Your task to perform on an android device: Open the calendar and show me this week's events? Image 0: 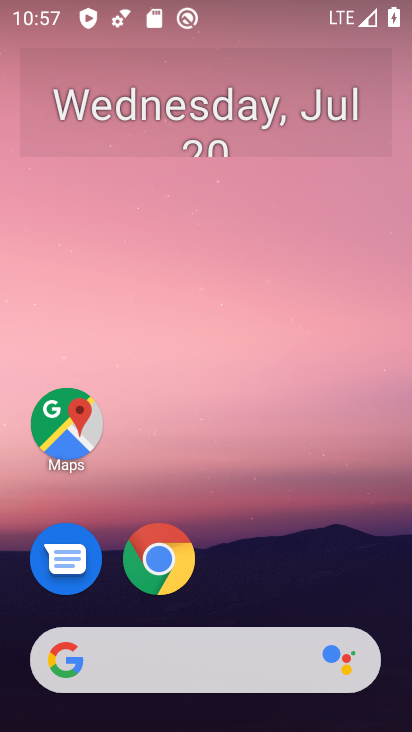
Step 0: drag from (209, 275) to (177, 42)
Your task to perform on an android device: Open the calendar and show me this week's events? Image 1: 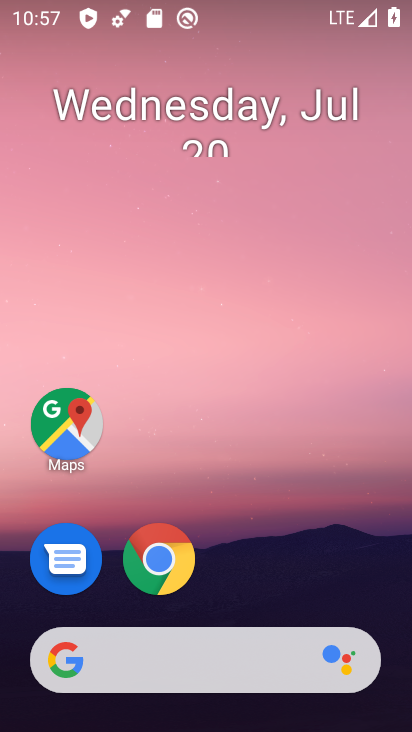
Step 1: drag from (195, 649) to (255, 334)
Your task to perform on an android device: Open the calendar and show me this week's events? Image 2: 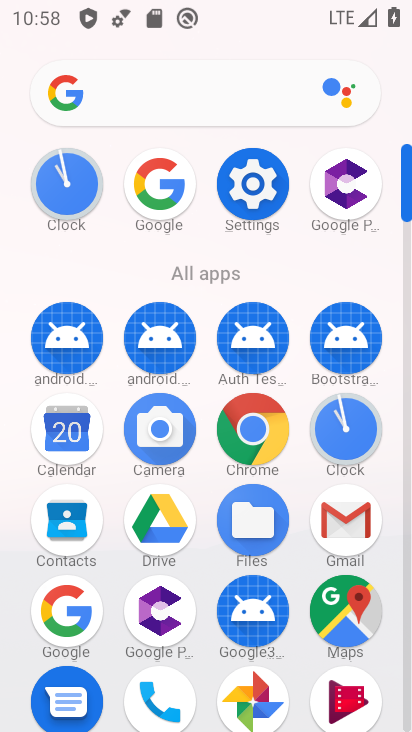
Step 2: click (78, 441)
Your task to perform on an android device: Open the calendar and show me this week's events? Image 3: 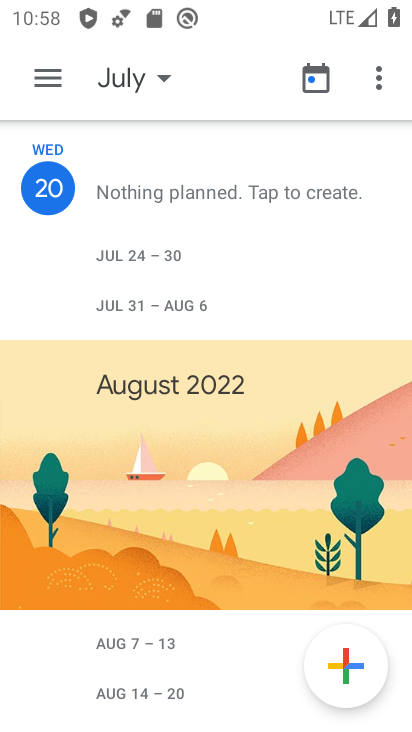
Step 3: click (138, 79)
Your task to perform on an android device: Open the calendar and show me this week's events? Image 4: 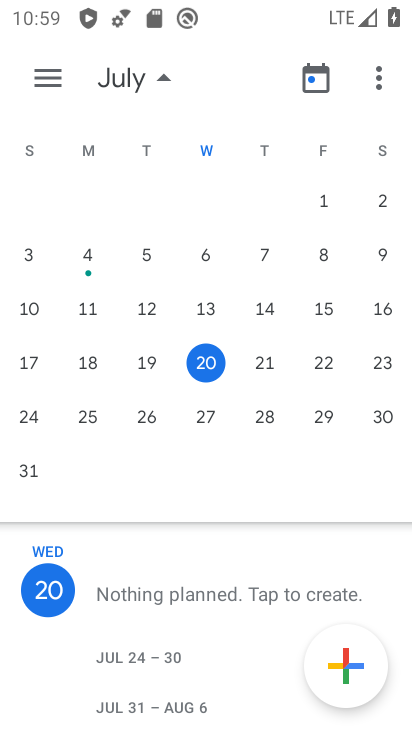
Step 4: click (220, 362)
Your task to perform on an android device: Open the calendar and show me this week's events? Image 5: 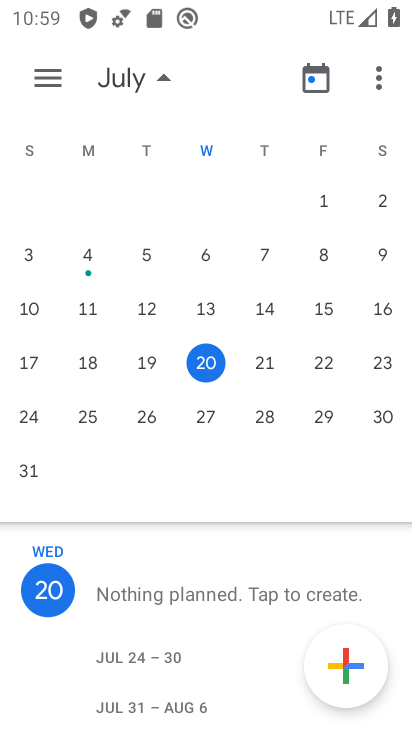
Step 5: task complete